Your task to perform on an android device: Open the downloads Image 0: 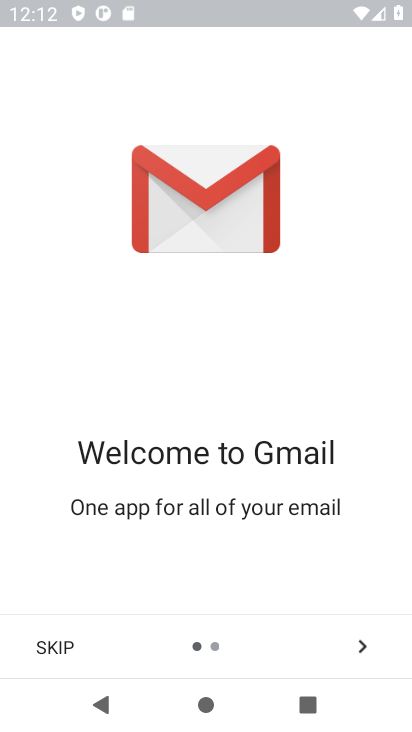
Step 0: press home button
Your task to perform on an android device: Open the downloads Image 1: 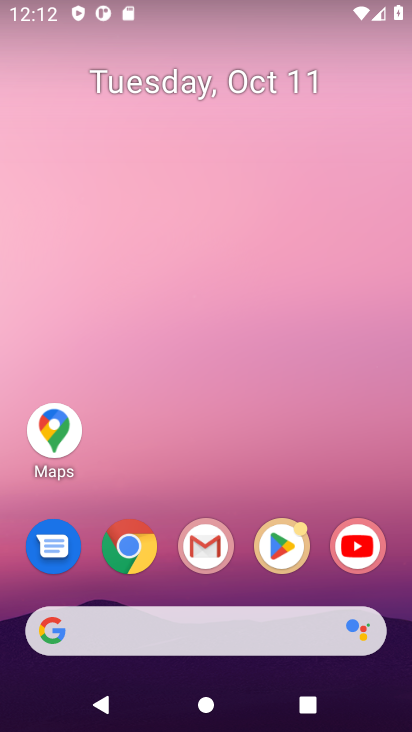
Step 1: drag from (170, 606) to (150, 247)
Your task to perform on an android device: Open the downloads Image 2: 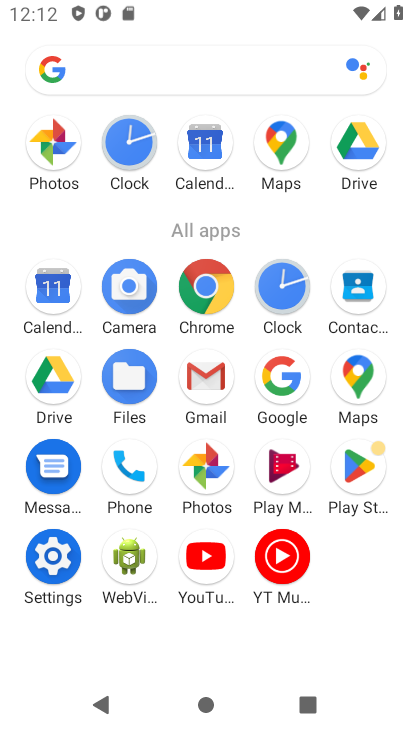
Step 2: click (202, 293)
Your task to perform on an android device: Open the downloads Image 3: 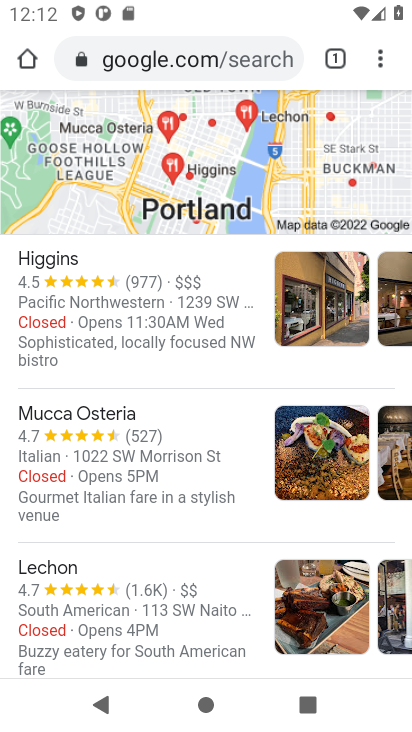
Step 3: click (378, 64)
Your task to perform on an android device: Open the downloads Image 4: 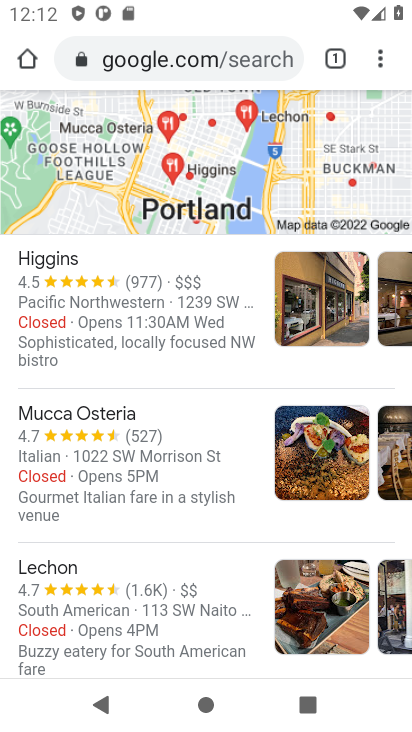
Step 4: click (380, 63)
Your task to perform on an android device: Open the downloads Image 5: 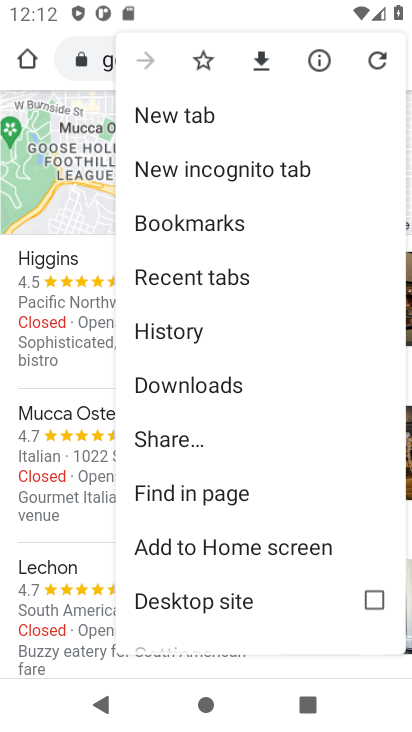
Step 5: click (209, 387)
Your task to perform on an android device: Open the downloads Image 6: 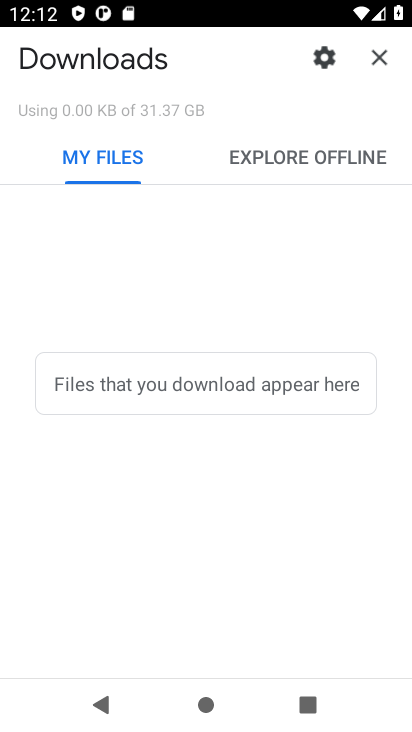
Step 6: task complete